Your task to perform on an android device: Go to Reddit.com Image 0: 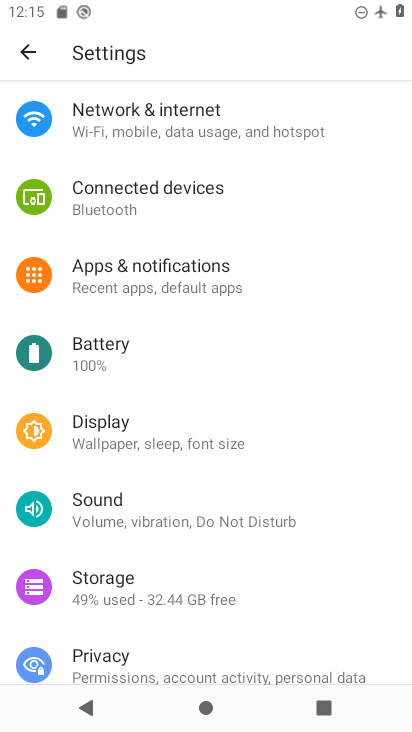
Step 0: press home button
Your task to perform on an android device: Go to Reddit.com Image 1: 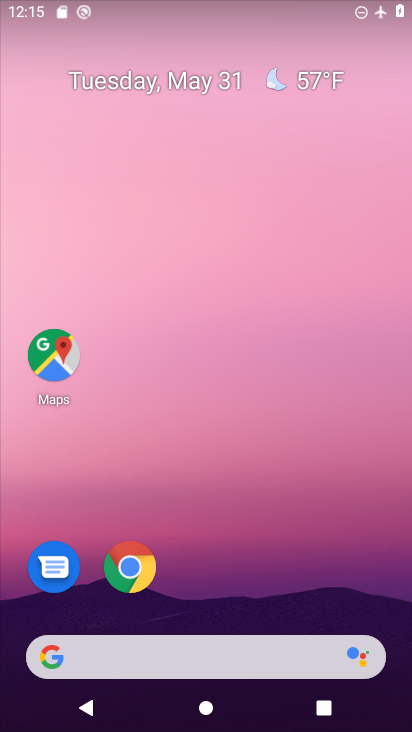
Step 1: click (120, 575)
Your task to perform on an android device: Go to Reddit.com Image 2: 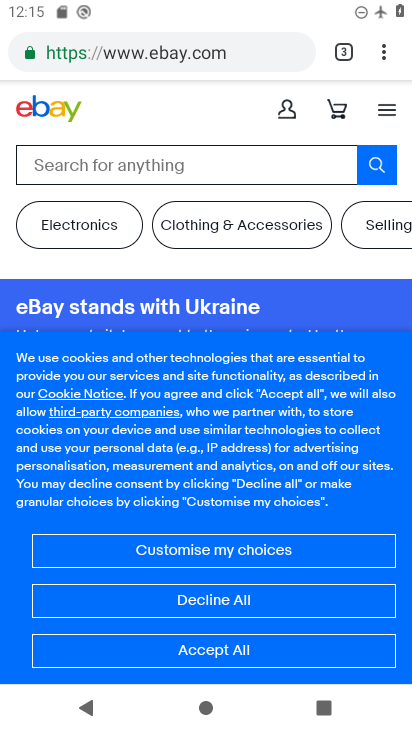
Step 2: click (343, 56)
Your task to perform on an android device: Go to Reddit.com Image 3: 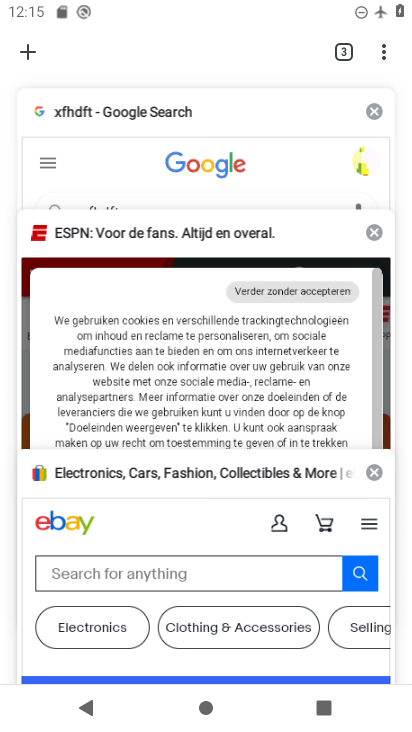
Step 3: click (25, 40)
Your task to perform on an android device: Go to Reddit.com Image 4: 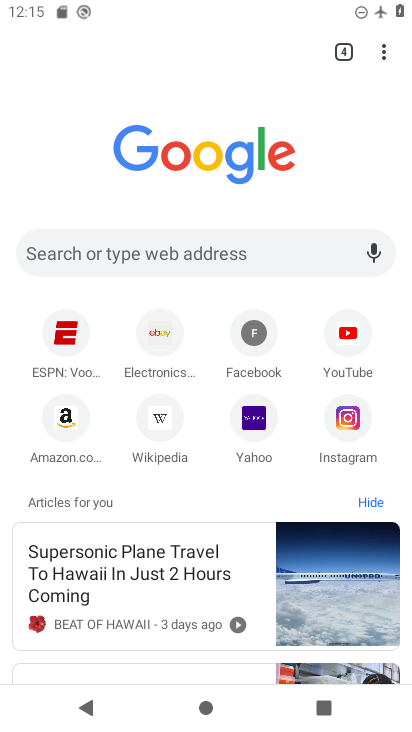
Step 4: click (179, 237)
Your task to perform on an android device: Go to Reddit.com Image 5: 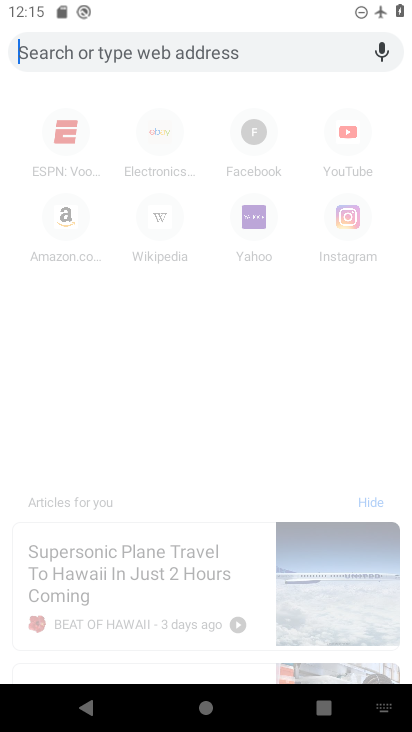
Step 5: type "Reddit.com"
Your task to perform on an android device: Go to Reddit.com Image 6: 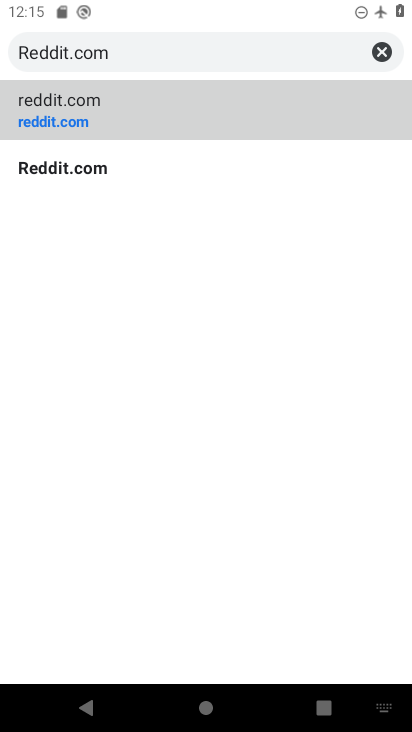
Step 6: click (58, 102)
Your task to perform on an android device: Go to Reddit.com Image 7: 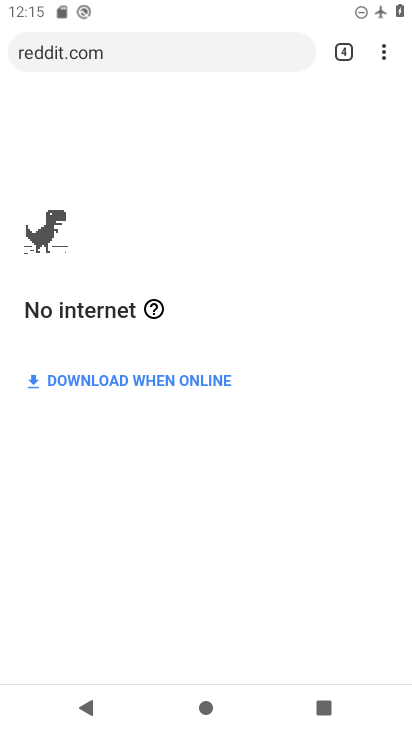
Step 7: task complete